Your task to perform on an android device: What's US dollar exchange rate against the Chinese Yuan? Image 0: 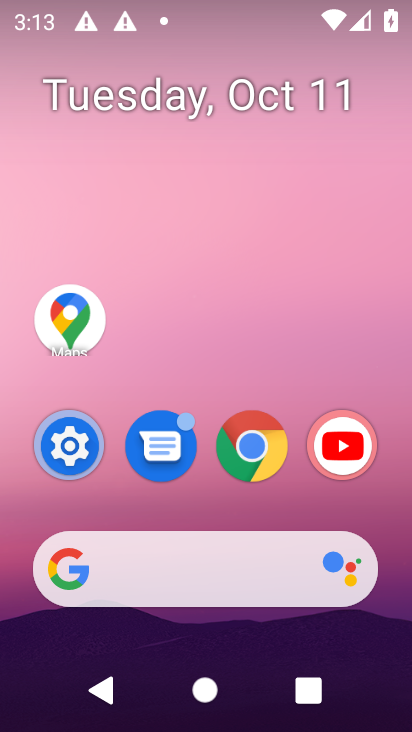
Step 0: click (253, 453)
Your task to perform on an android device: What's US dollar exchange rate against the Chinese Yuan? Image 1: 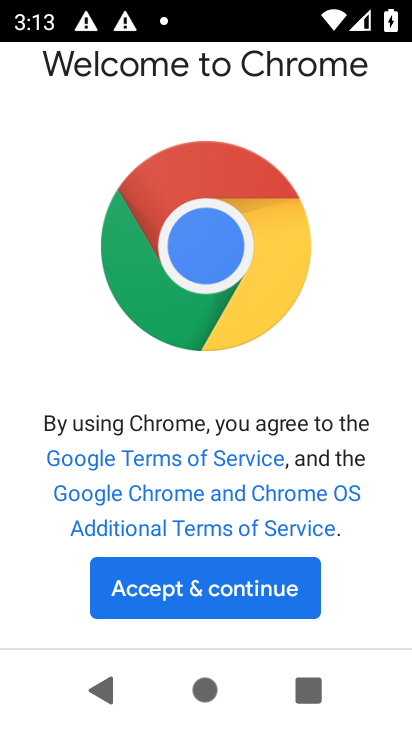
Step 1: click (200, 585)
Your task to perform on an android device: What's US dollar exchange rate against the Chinese Yuan? Image 2: 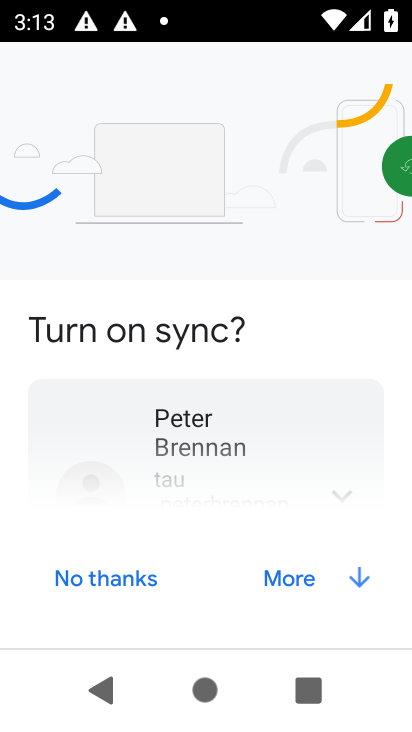
Step 2: click (80, 578)
Your task to perform on an android device: What's US dollar exchange rate against the Chinese Yuan? Image 3: 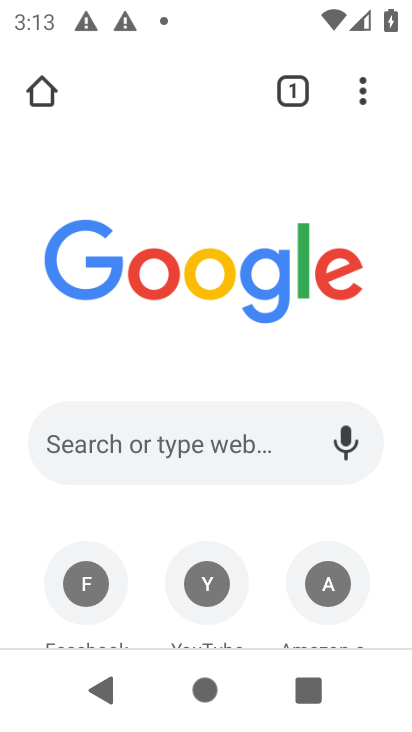
Step 3: click (130, 90)
Your task to perform on an android device: What's US dollar exchange rate against the Chinese Yuan? Image 4: 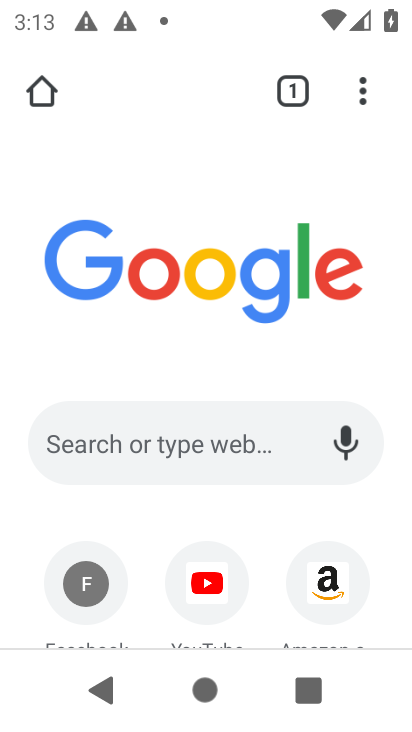
Step 4: click (137, 419)
Your task to perform on an android device: What's US dollar exchange rate against the Chinese Yuan? Image 5: 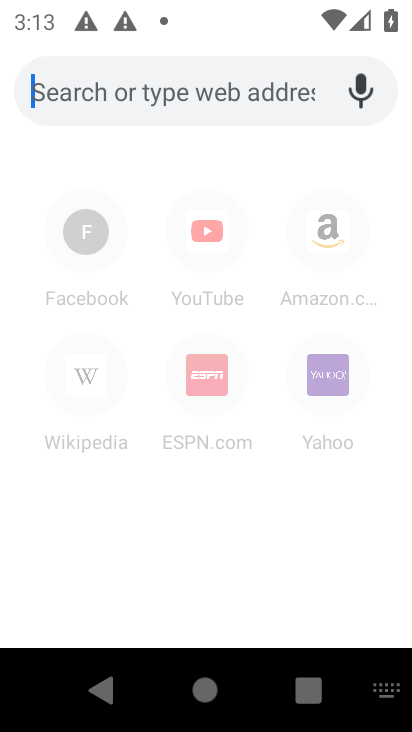
Step 5: type " US dollar exchange rate against the Chinese Yuan"
Your task to perform on an android device: What's US dollar exchange rate against the Chinese Yuan? Image 6: 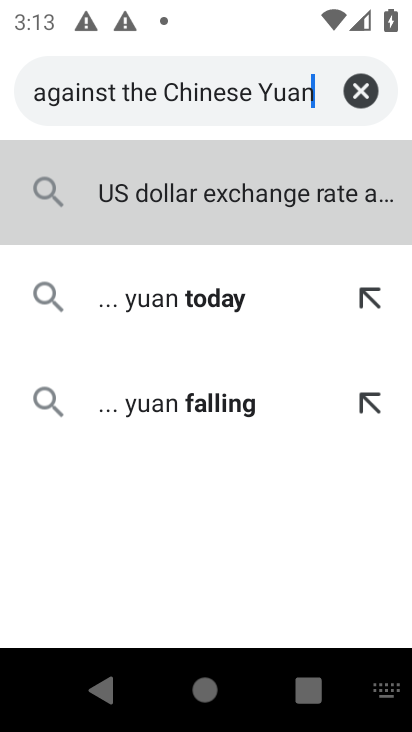
Step 6: click (221, 199)
Your task to perform on an android device: What's US dollar exchange rate against the Chinese Yuan? Image 7: 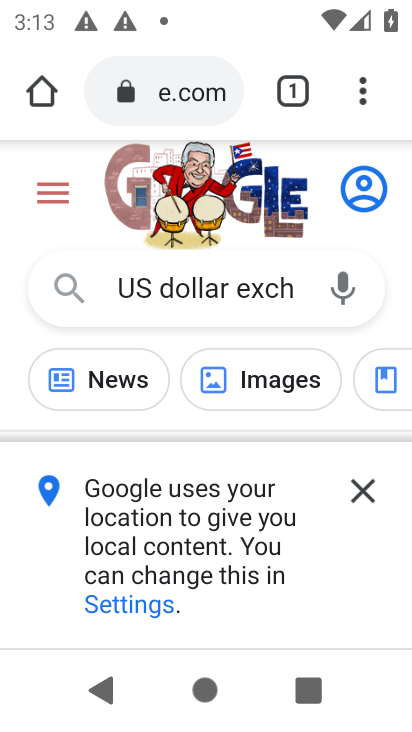
Step 7: click (358, 499)
Your task to perform on an android device: What's US dollar exchange rate against the Chinese Yuan? Image 8: 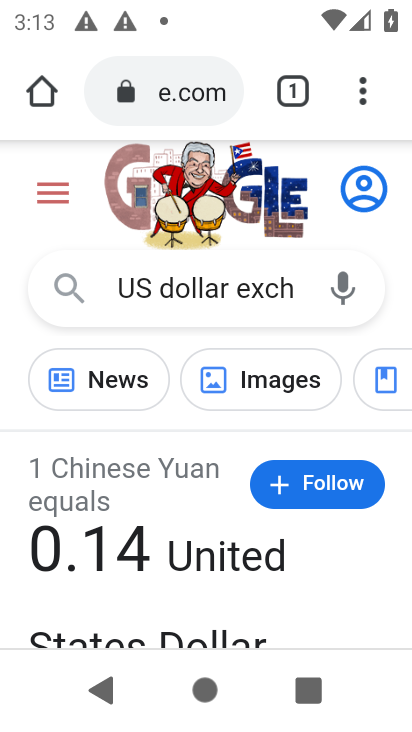
Step 8: task complete